Your task to perform on an android device: turn off javascript in the chrome app Image 0: 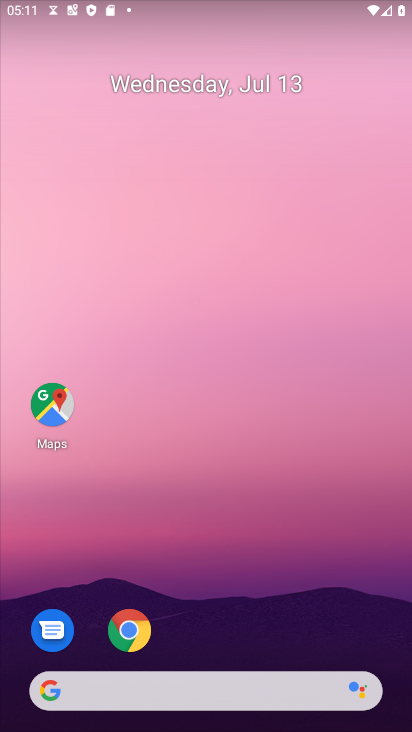
Step 0: drag from (134, 331) to (181, 10)
Your task to perform on an android device: turn off javascript in the chrome app Image 1: 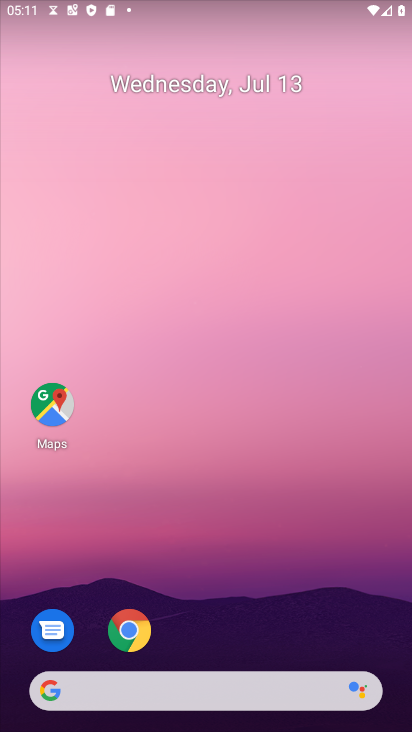
Step 1: drag from (238, 687) to (280, 13)
Your task to perform on an android device: turn off javascript in the chrome app Image 2: 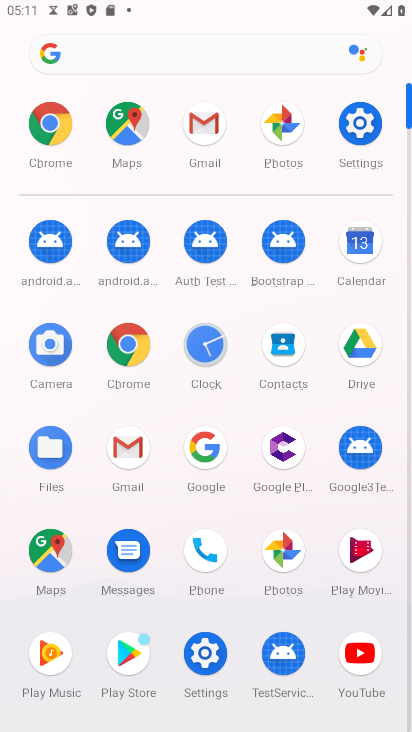
Step 2: click (131, 355)
Your task to perform on an android device: turn off javascript in the chrome app Image 3: 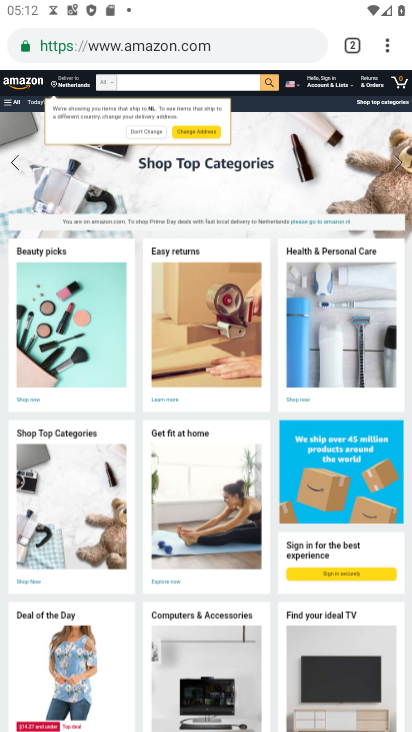
Step 3: drag from (385, 34) to (241, 539)
Your task to perform on an android device: turn off javascript in the chrome app Image 4: 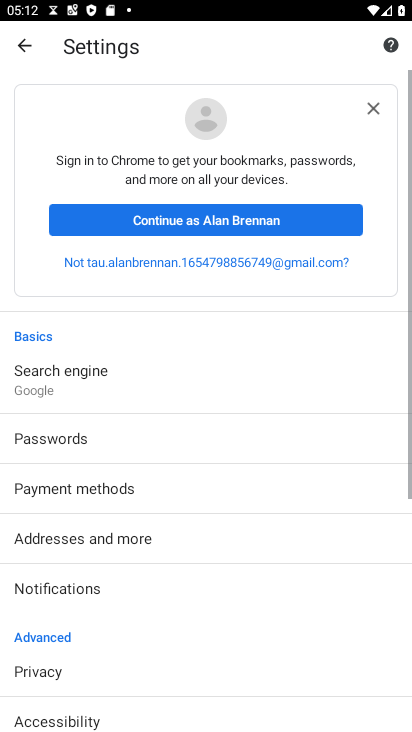
Step 4: drag from (174, 641) to (207, 182)
Your task to perform on an android device: turn off javascript in the chrome app Image 5: 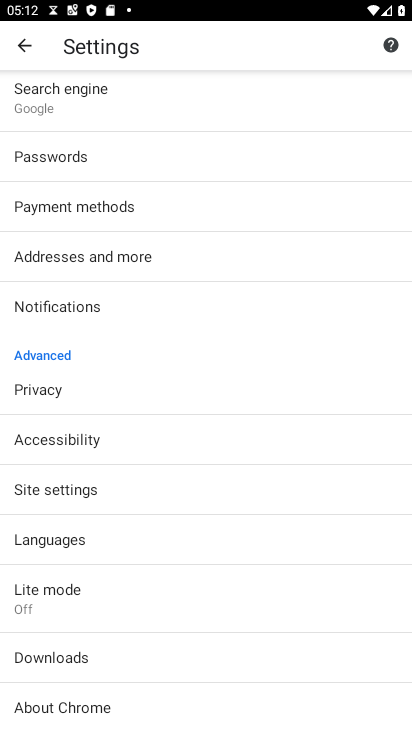
Step 5: click (84, 497)
Your task to perform on an android device: turn off javascript in the chrome app Image 6: 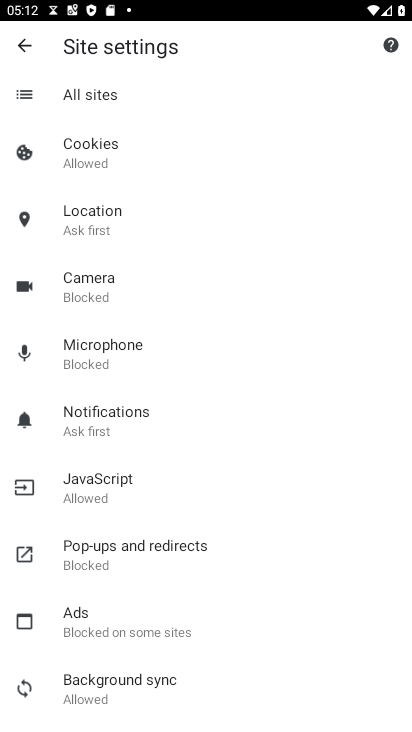
Step 6: click (107, 495)
Your task to perform on an android device: turn off javascript in the chrome app Image 7: 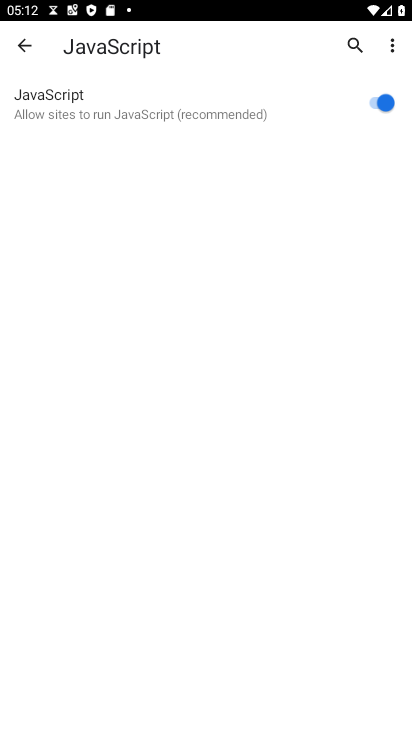
Step 7: click (380, 106)
Your task to perform on an android device: turn off javascript in the chrome app Image 8: 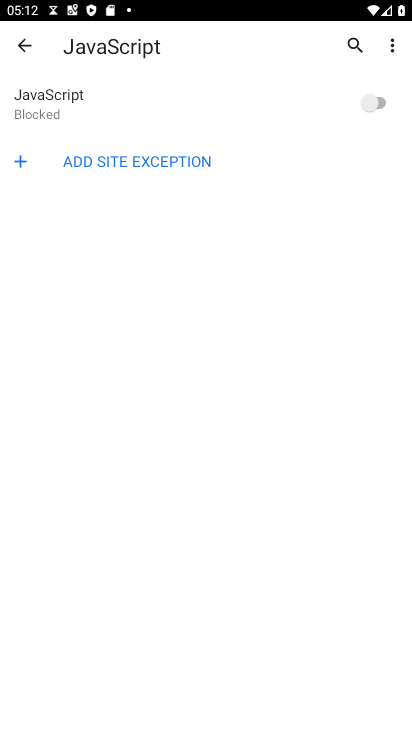
Step 8: task complete